Your task to perform on an android device: add a contact Image 0: 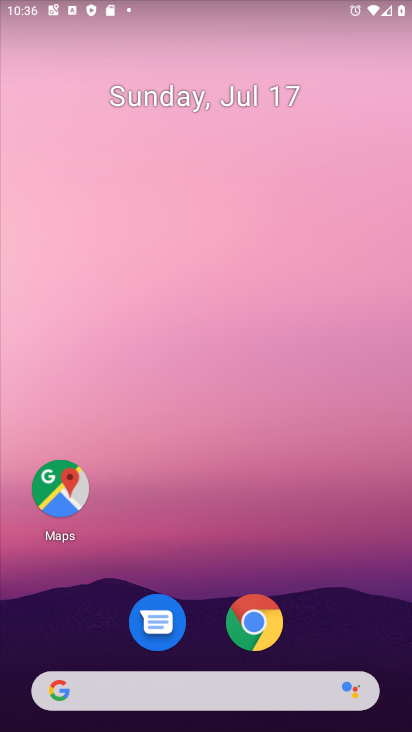
Step 0: drag from (194, 724) to (197, 243)
Your task to perform on an android device: add a contact Image 1: 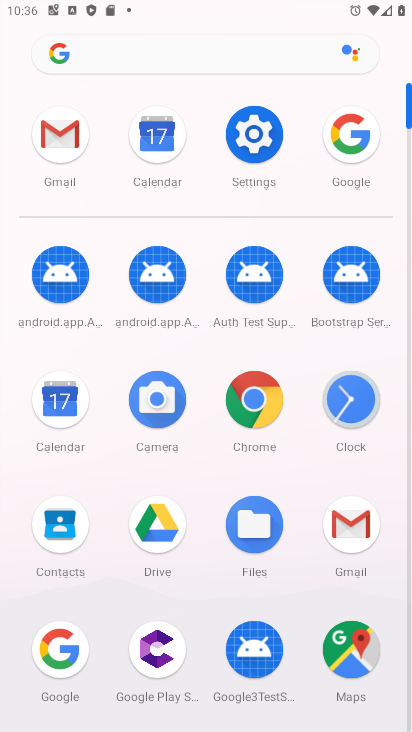
Step 1: click (49, 538)
Your task to perform on an android device: add a contact Image 2: 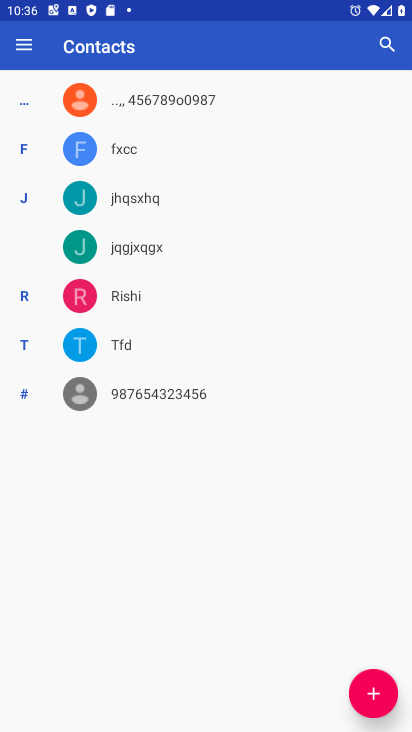
Step 2: click (383, 694)
Your task to perform on an android device: add a contact Image 3: 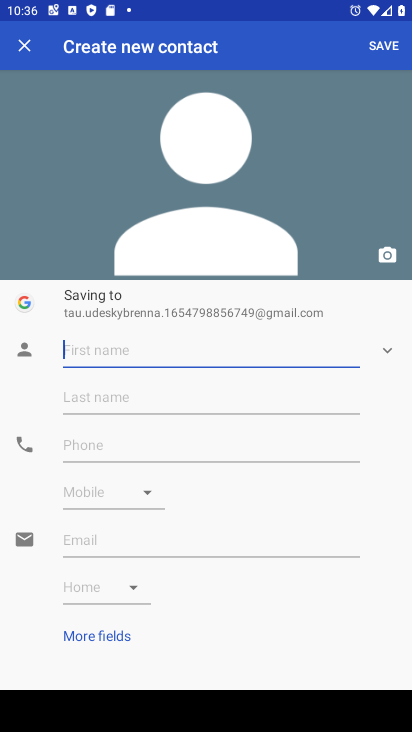
Step 3: type "hh"
Your task to perform on an android device: add a contact Image 4: 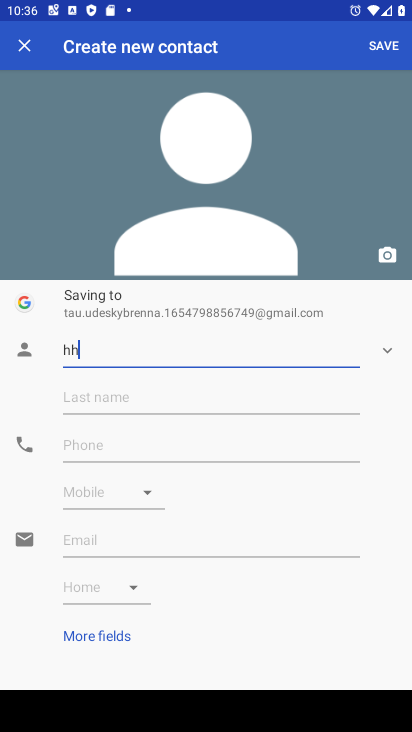
Step 4: click (118, 447)
Your task to perform on an android device: add a contact Image 5: 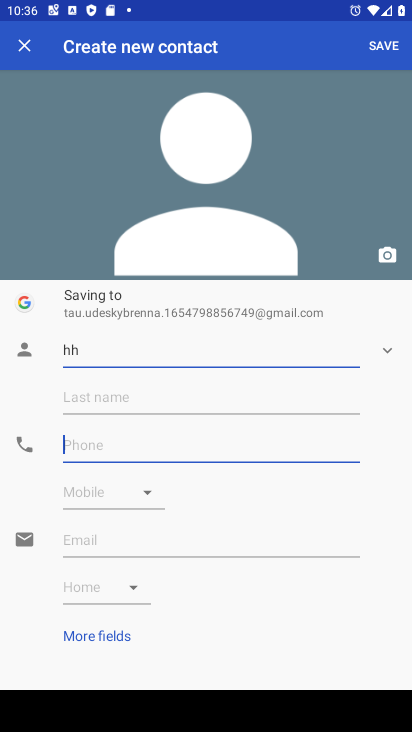
Step 5: click (118, 447)
Your task to perform on an android device: add a contact Image 6: 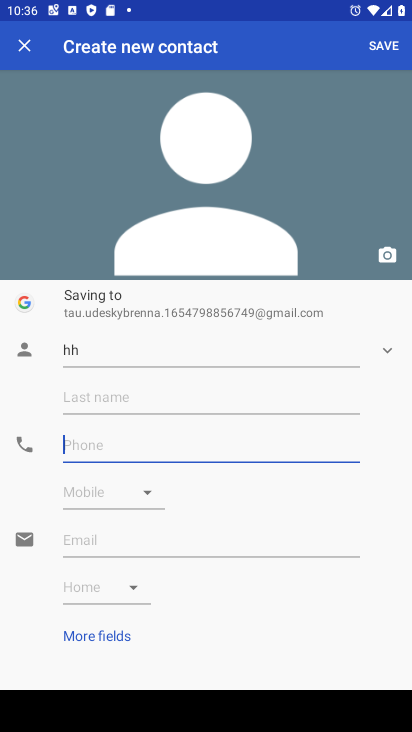
Step 6: type "6678"
Your task to perform on an android device: add a contact Image 7: 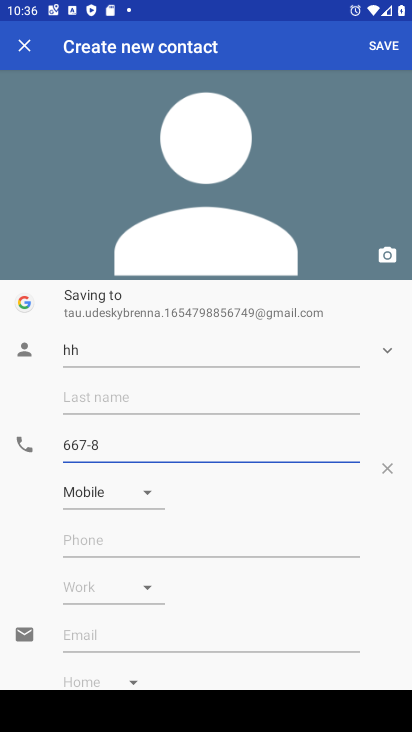
Step 7: click (392, 51)
Your task to perform on an android device: add a contact Image 8: 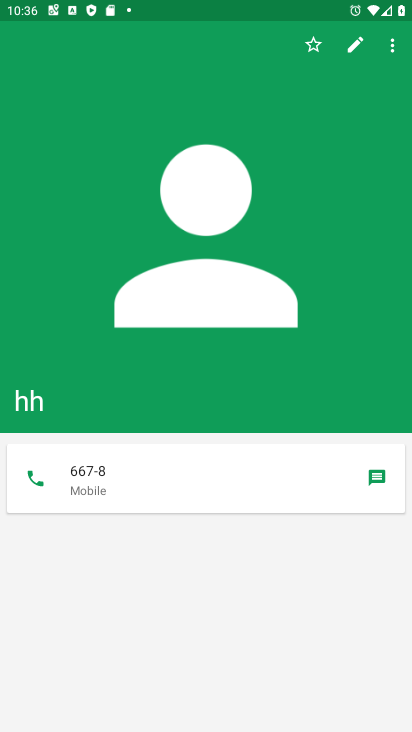
Step 8: press home button
Your task to perform on an android device: add a contact Image 9: 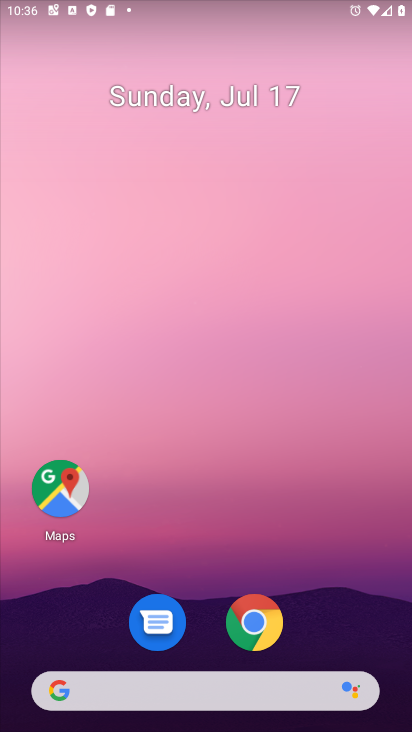
Step 9: drag from (223, 702) to (236, 114)
Your task to perform on an android device: add a contact Image 10: 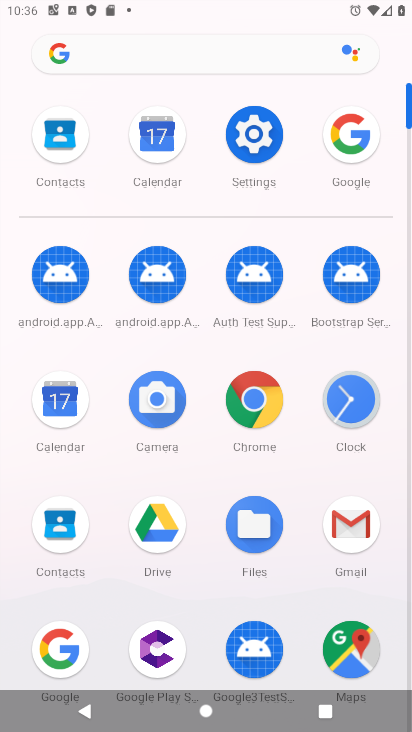
Step 10: click (50, 150)
Your task to perform on an android device: add a contact Image 11: 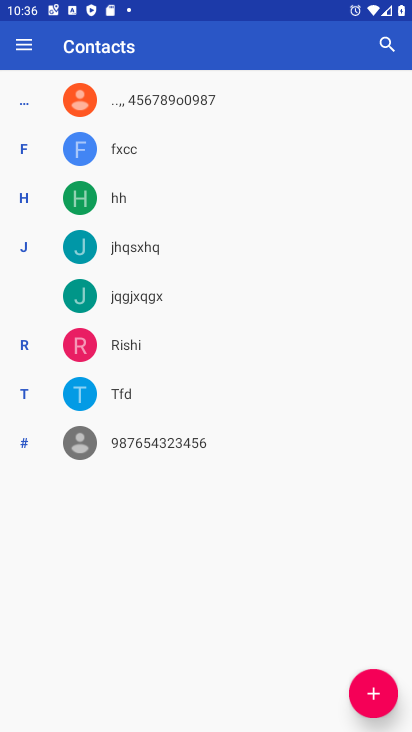
Step 11: click (359, 680)
Your task to perform on an android device: add a contact Image 12: 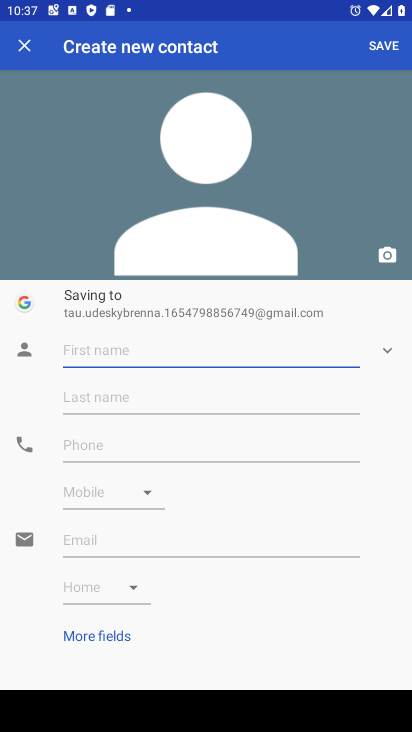
Step 12: type "jhkj"
Your task to perform on an android device: add a contact Image 13: 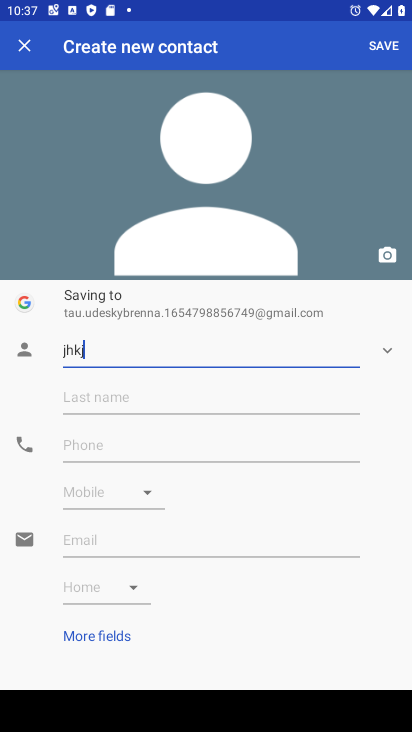
Step 13: click (219, 441)
Your task to perform on an android device: add a contact Image 14: 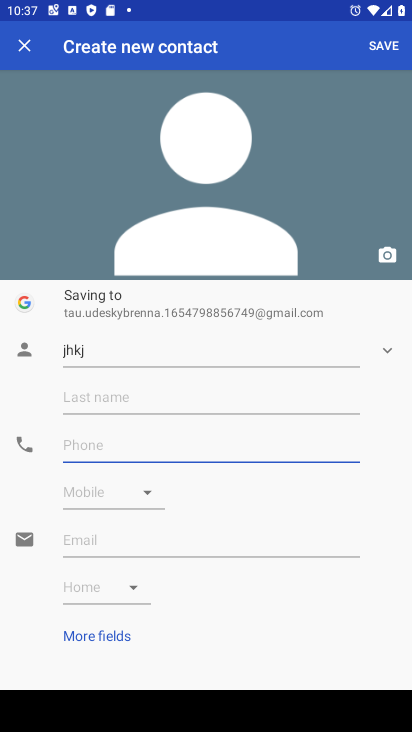
Step 14: type "6777"
Your task to perform on an android device: add a contact Image 15: 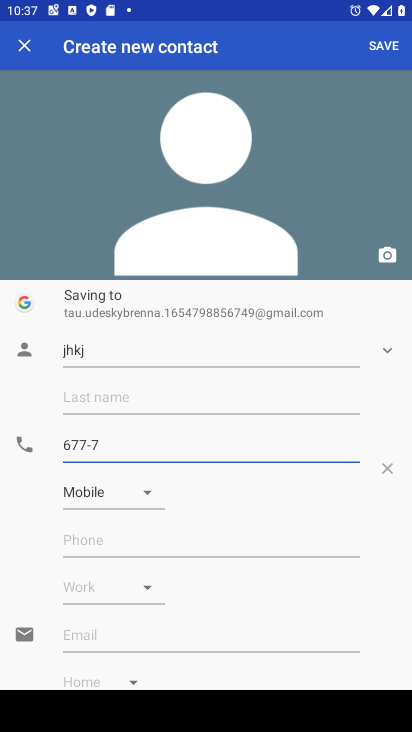
Step 15: click (381, 41)
Your task to perform on an android device: add a contact Image 16: 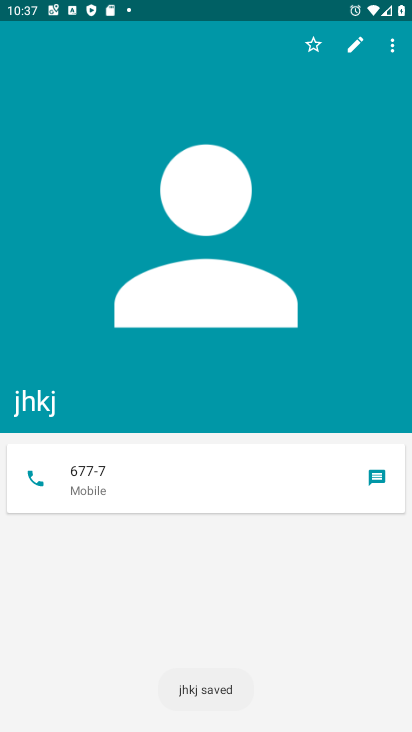
Step 16: task complete